Your task to perform on an android device: choose inbox layout in the gmail app Image 0: 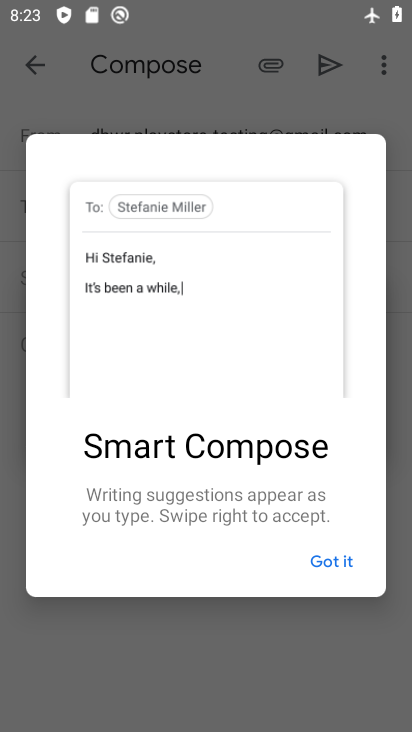
Step 0: press home button
Your task to perform on an android device: choose inbox layout in the gmail app Image 1: 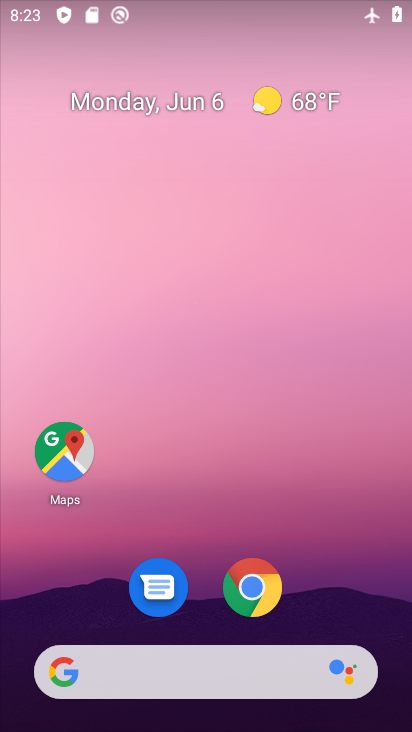
Step 1: drag from (171, 661) to (161, 67)
Your task to perform on an android device: choose inbox layout in the gmail app Image 2: 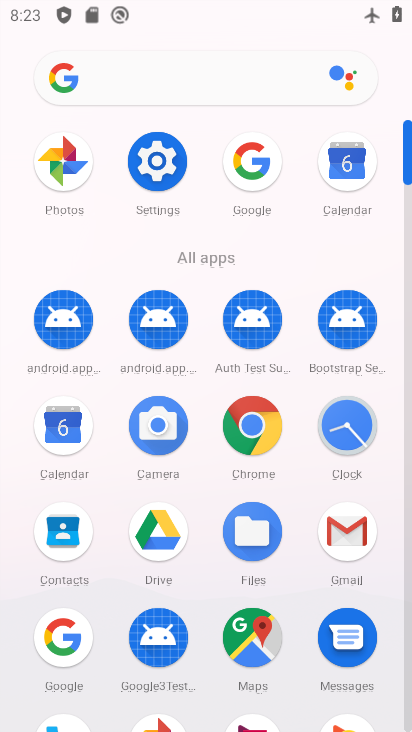
Step 2: click (361, 521)
Your task to perform on an android device: choose inbox layout in the gmail app Image 3: 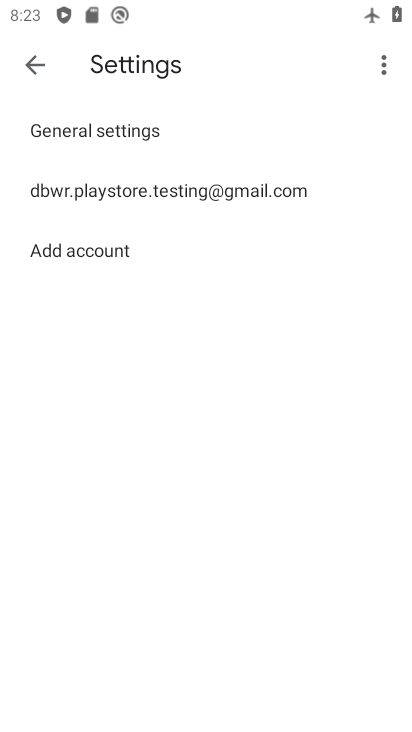
Step 3: click (147, 188)
Your task to perform on an android device: choose inbox layout in the gmail app Image 4: 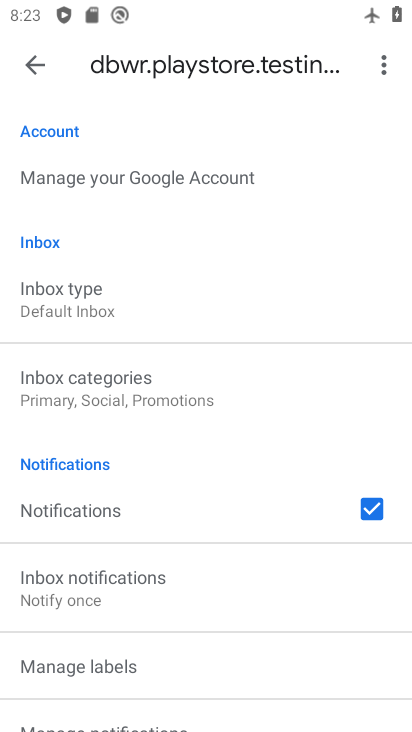
Step 4: click (87, 294)
Your task to perform on an android device: choose inbox layout in the gmail app Image 5: 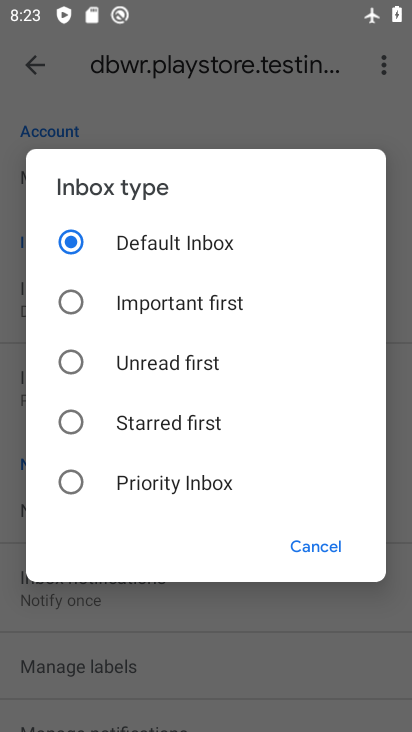
Step 5: click (130, 485)
Your task to perform on an android device: choose inbox layout in the gmail app Image 6: 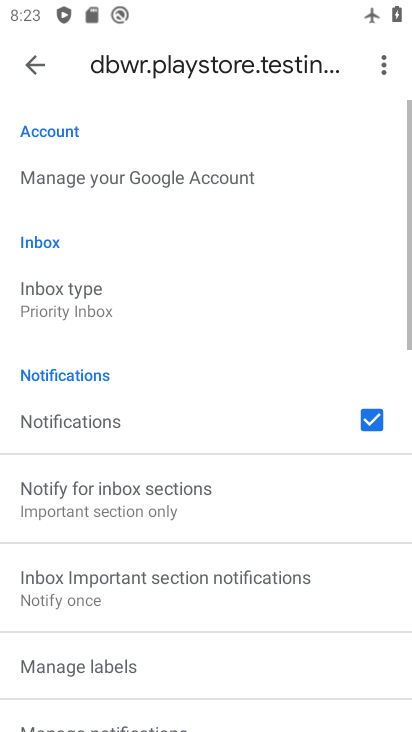
Step 6: task complete